Your task to perform on an android device: check the backup settings in the google photos Image 0: 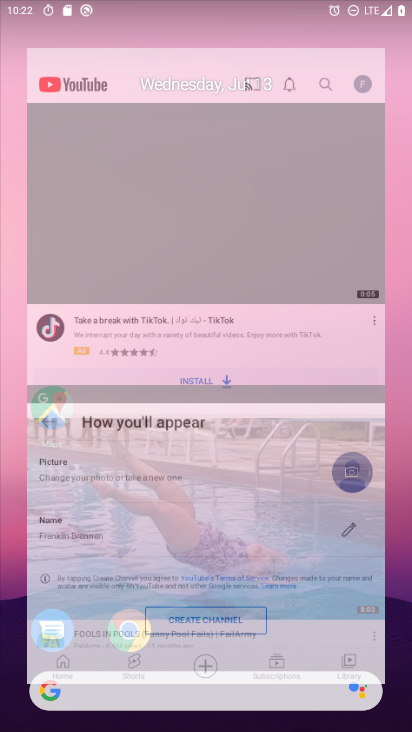
Step 0: drag from (376, 666) to (250, 59)
Your task to perform on an android device: check the backup settings in the google photos Image 1: 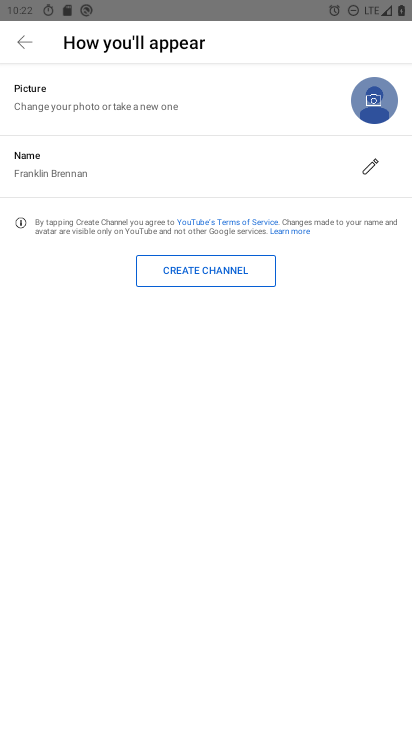
Step 1: press home button
Your task to perform on an android device: check the backup settings in the google photos Image 2: 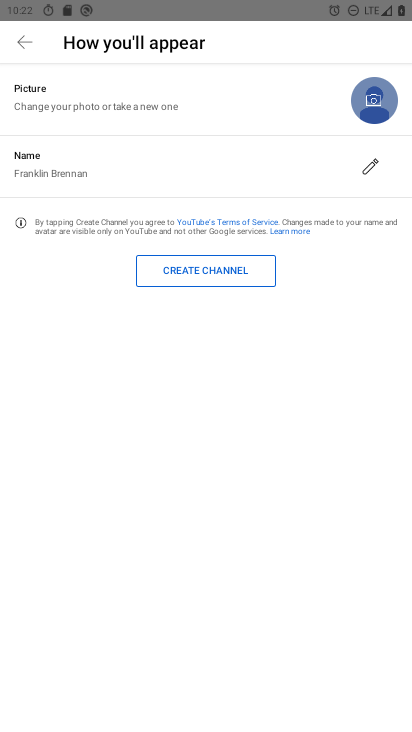
Step 2: click (269, 60)
Your task to perform on an android device: check the backup settings in the google photos Image 3: 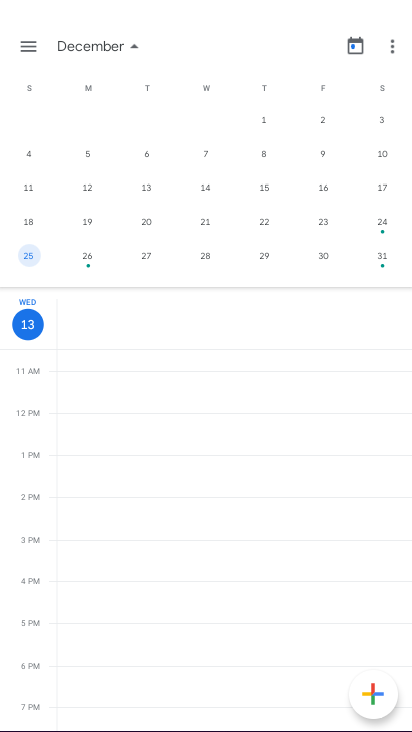
Step 3: drag from (407, 668) to (251, 72)
Your task to perform on an android device: check the backup settings in the google photos Image 4: 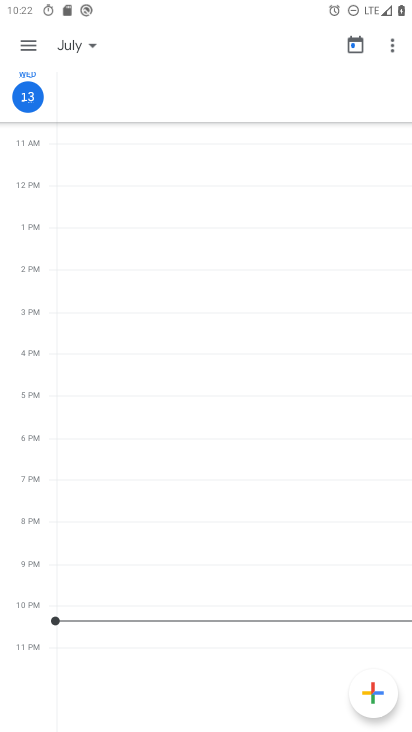
Step 4: press home button
Your task to perform on an android device: check the backup settings in the google photos Image 5: 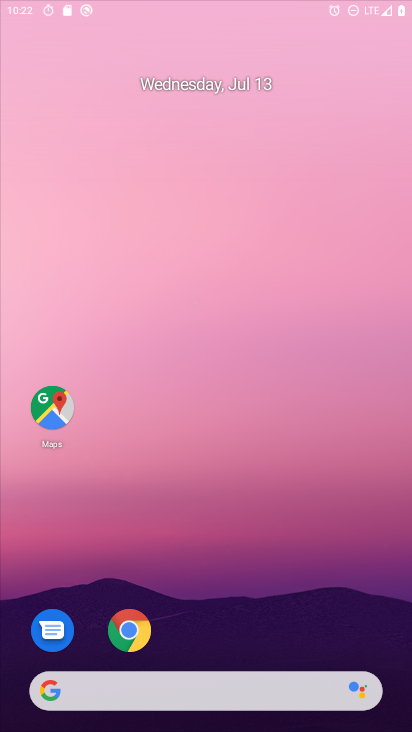
Step 5: drag from (377, 695) to (273, 31)
Your task to perform on an android device: check the backup settings in the google photos Image 6: 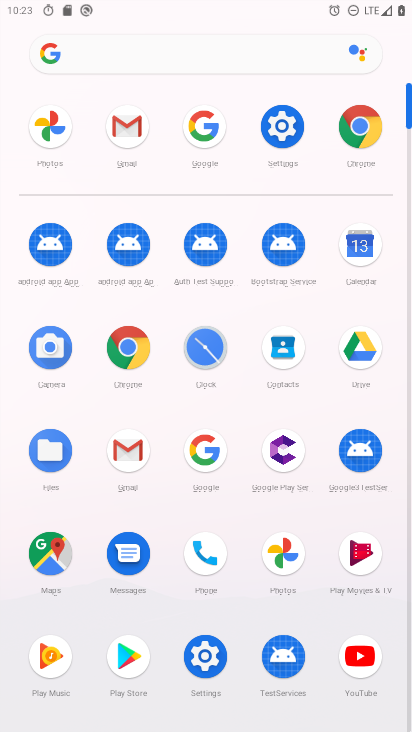
Step 6: click (289, 557)
Your task to perform on an android device: check the backup settings in the google photos Image 7: 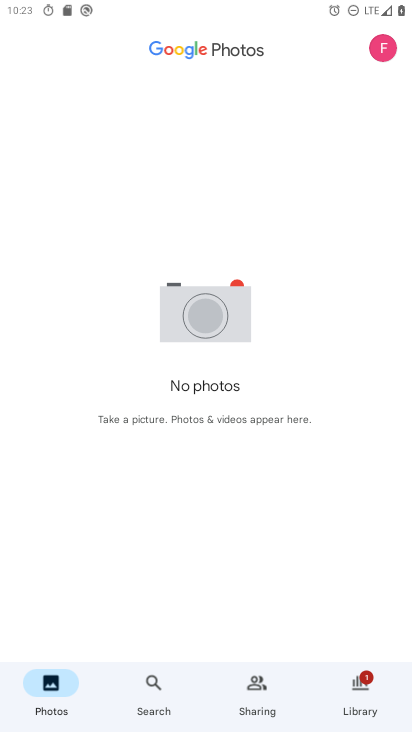
Step 7: click (366, 53)
Your task to perform on an android device: check the backup settings in the google photos Image 8: 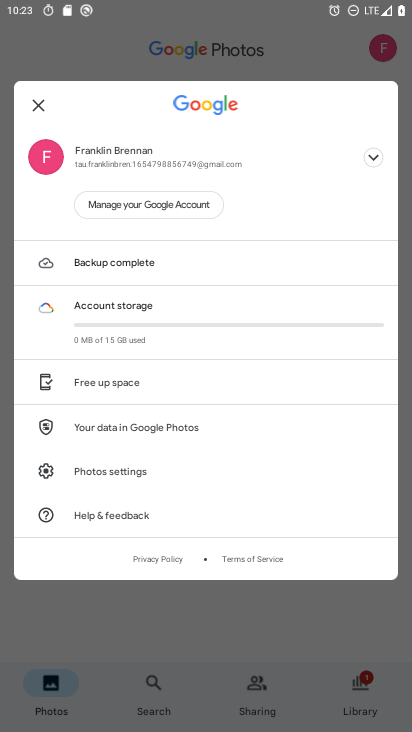
Step 8: click (144, 271)
Your task to perform on an android device: check the backup settings in the google photos Image 9: 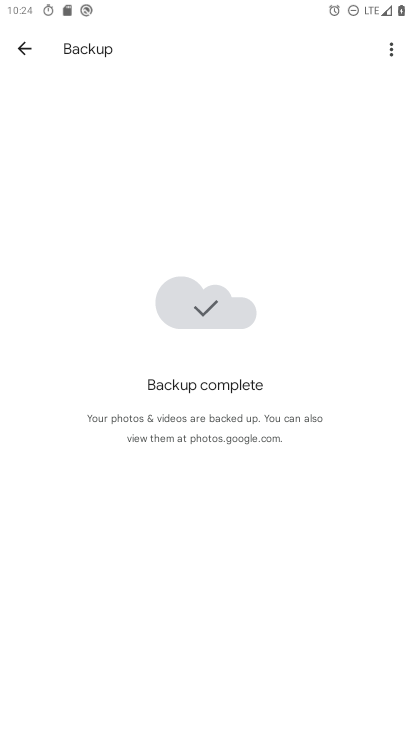
Step 9: task complete